Your task to perform on an android device: What's the weather today? Image 0: 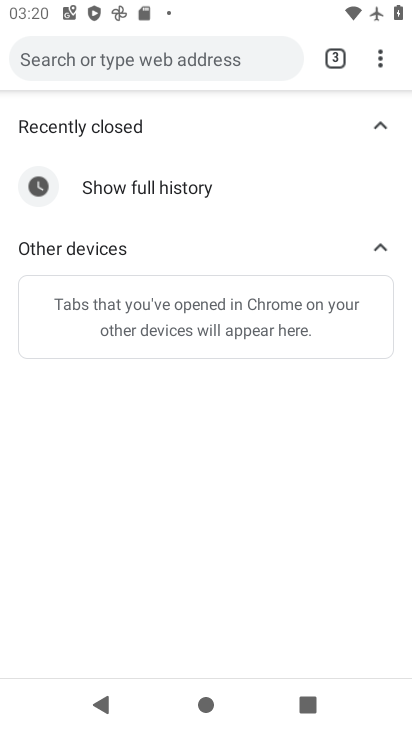
Step 0: drag from (181, 556) to (240, 247)
Your task to perform on an android device: What's the weather today? Image 1: 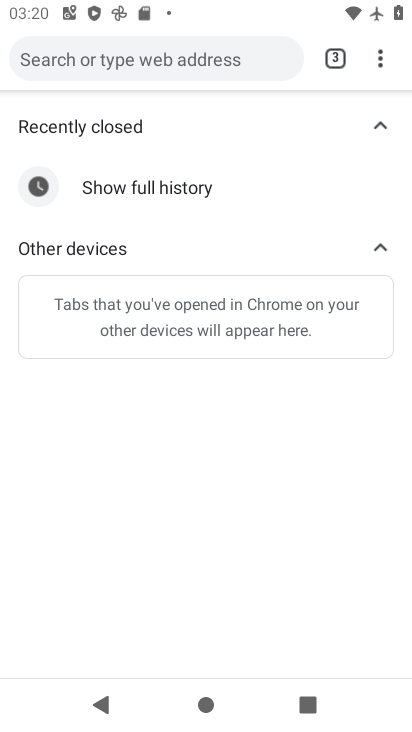
Step 1: drag from (201, 561) to (272, 344)
Your task to perform on an android device: What's the weather today? Image 2: 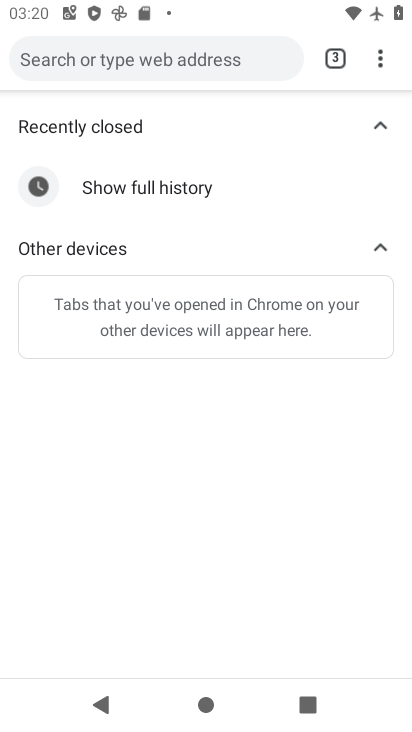
Step 2: drag from (271, 457) to (287, 316)
Your task to perform on an android device: What's the weather today? Image 3: 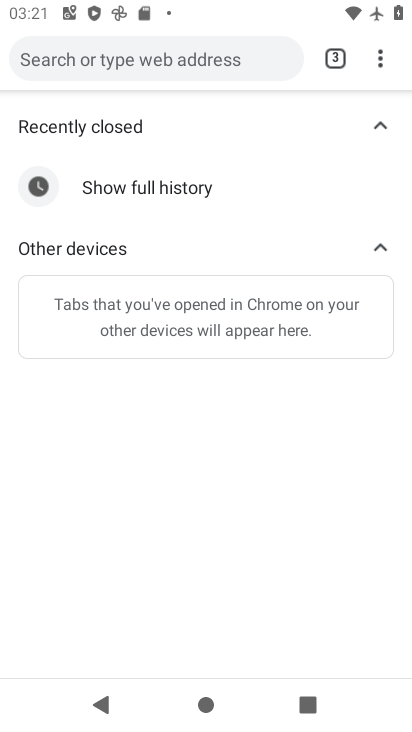
Step 3: click (150, 443)
Your task to perform on an android device: What's the weather today? Image 4: 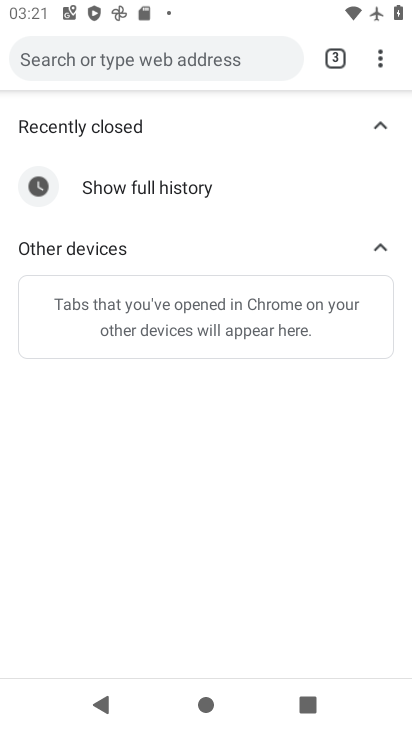
Step 4: press home button
Your task to perform on an android device: What's the weather today? Image 5: 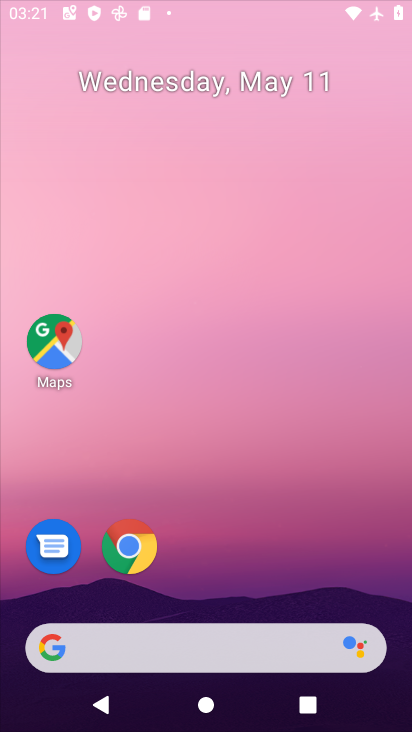
Step 5: drag from (208, 613) to (287, 166)
Your task to perform on an android device: What's the weather today? Image 6: 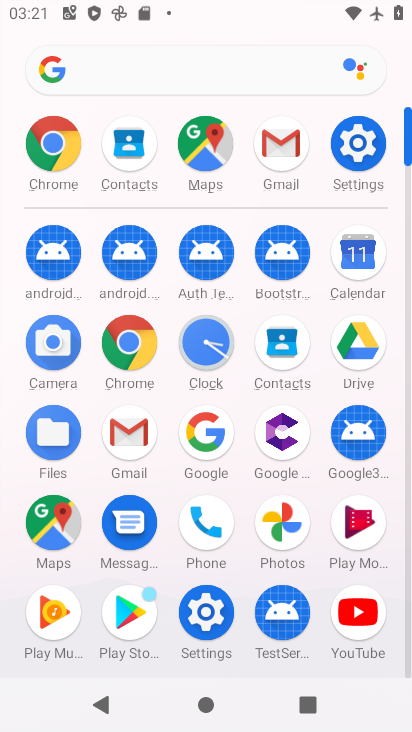
Step 6: click (170, 70)
Your task to perform on an android device: What's the weather today? Image 7: 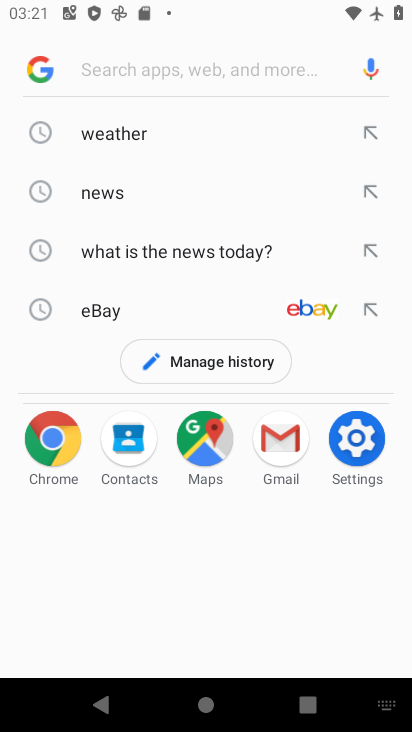
Step 7: type "weather today"
Your task to perform on an android device: What's the weather today? Image 8: 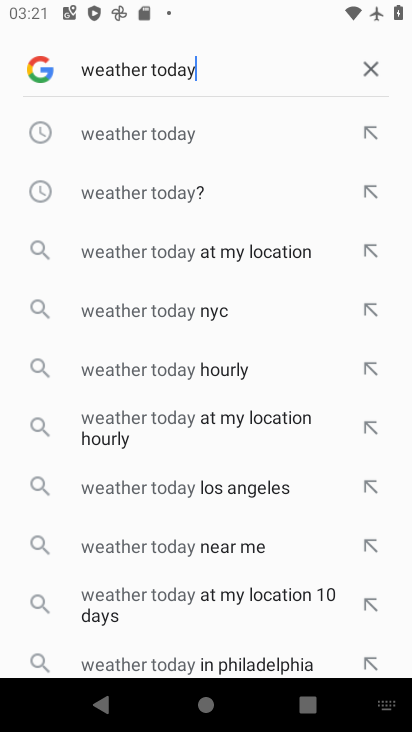
Step 8: click (183, 130)
Your task to perform on an android device: What's the weather today? Image 9: 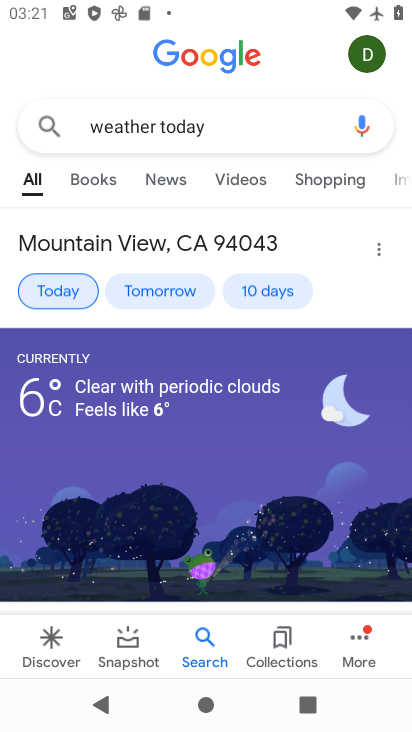
Step 9: task complete